Your task to perform on an android device: Open the phone app and click the voicemail tab. Image 0: 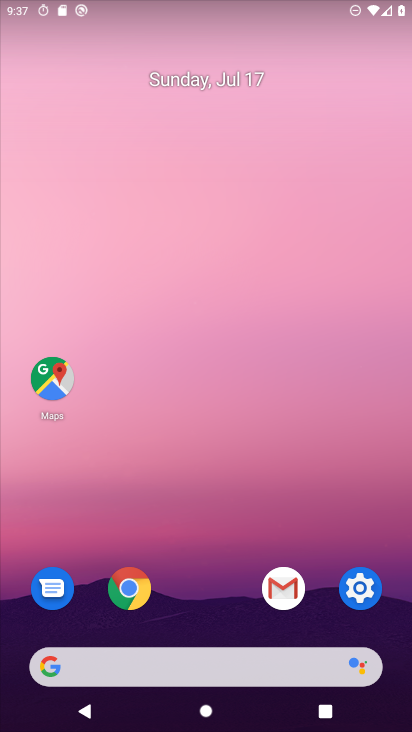
Step 0: drag from (299, 674) to (271, 152)
Your task to perform on an android device: Open the phone app and click the voicemail tab. Image 1: 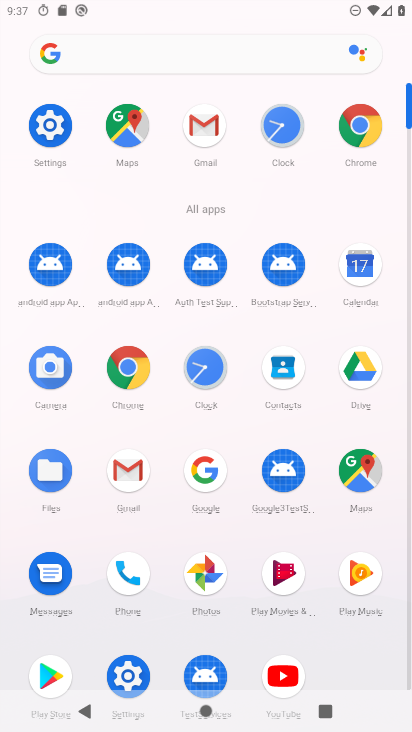
Step 1: click (126, 555)
Your task to perform on an android device: Open the phone app and click the voicemail tab. Image 2: 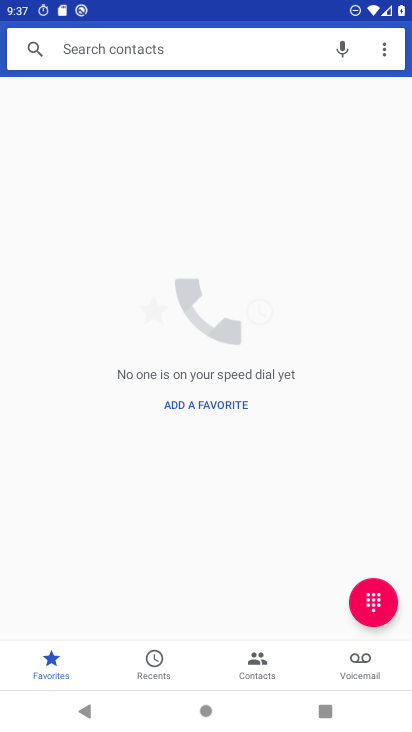
Step 2: click (340, 671)
Your task to perform on an android device: Open the phone app and click the voicemail tab. Image 3: 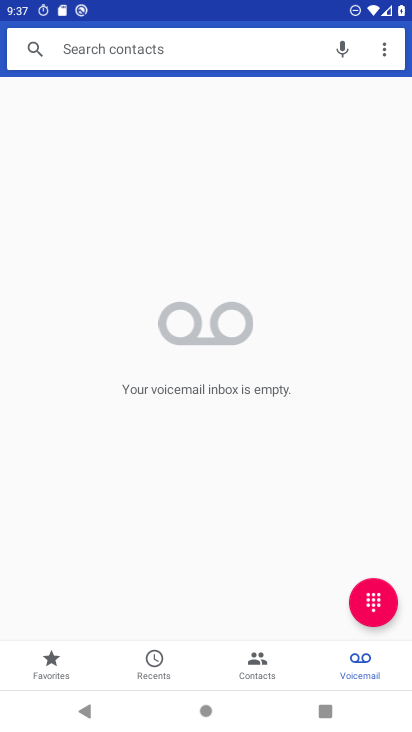
Step 3: task complete